Your task to perform on an android device: Open Google Chrome and open the bookmarks view Image 0: 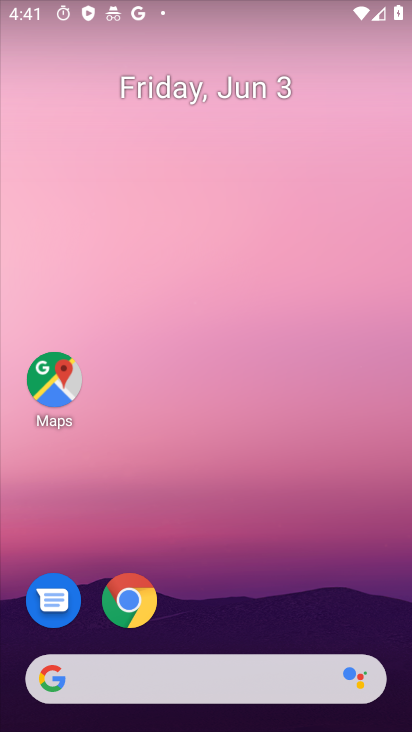
Step 0: drag from (397, 584) to (347, 154)
Your task to perform on an android device: Open Google Chrome and open the bookmarks view Image 1: 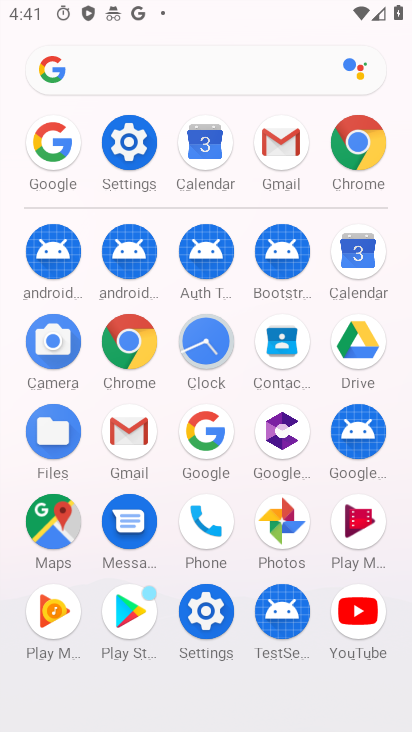
Step 1: click (220, 422)
Your task to perform on an android device: Open Google Chrome and open the bookmarks view Image 2: 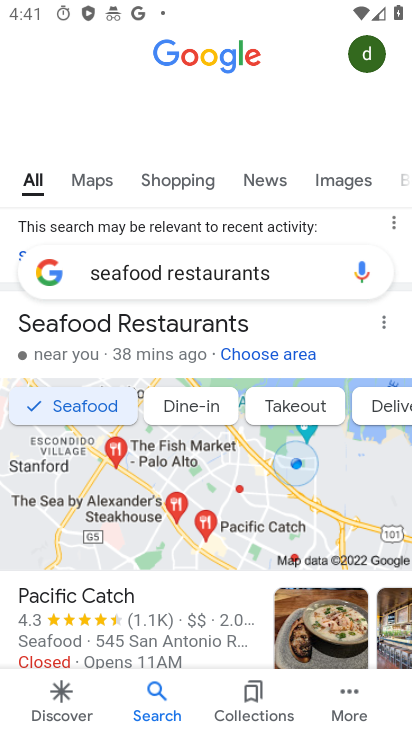
Step 2: press home button
Your task to perform on an android device: Open Google Chrome and open the bookmarks view Image 3: 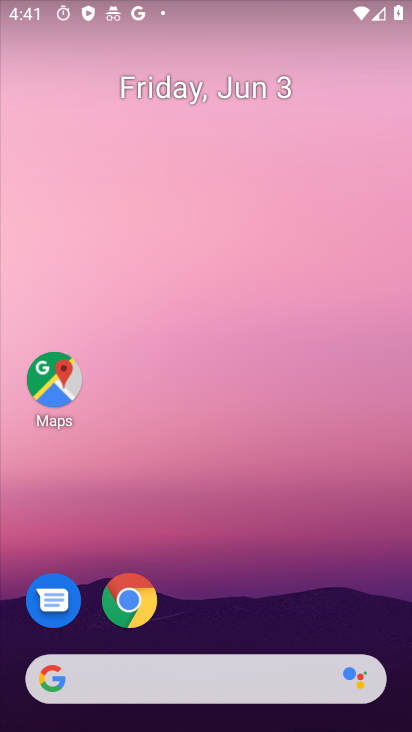
Step 3: click (125, 594)
Your task to perform on an android device: Open Google Chrome and open the bookmarks view Image 4: 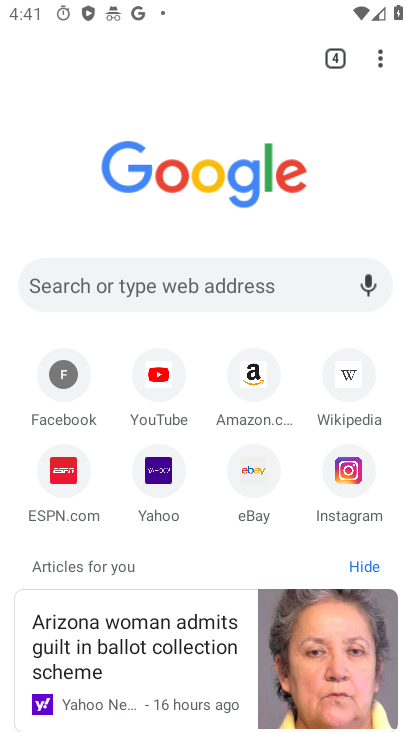
Step 4: click (377, 51)
Your task to perform on an android device: Open Google Chrome and open the bookmarks view Image 5: 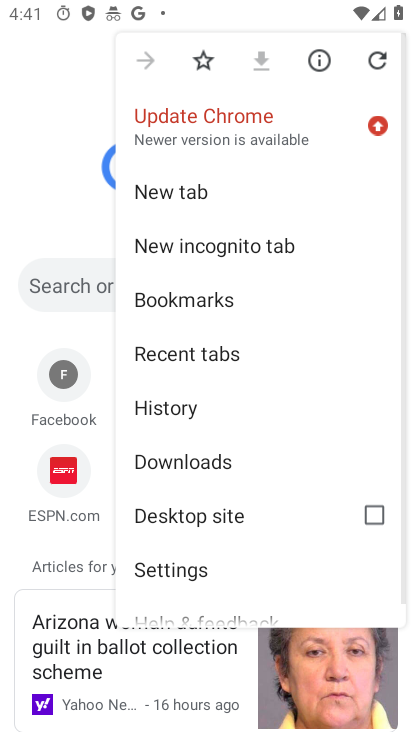
Step 5: click (188, 299)
Your task to perform on an android device: Open Google Chrome and open the bookmarks view Image 6: 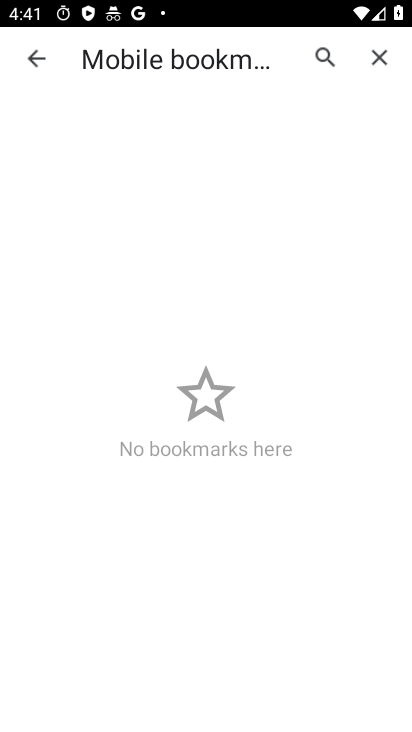
Step 6: task complete